Your task to perform on an android device: delete browsing data in the chrome app Image 0: 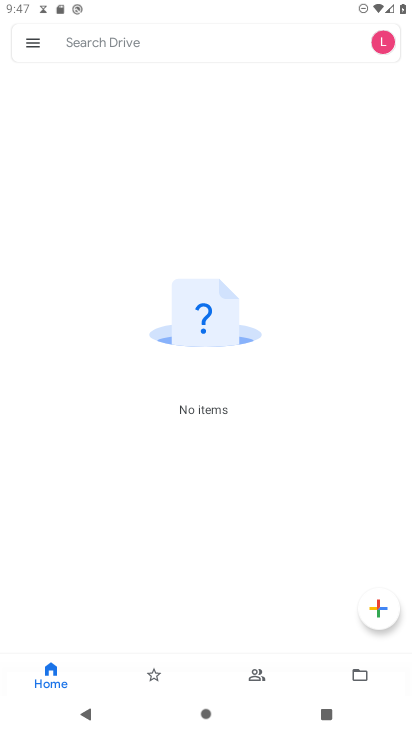
Step 0: press home button
Your task to perform on an android device: delete browsing data in the chrome app Image 1: 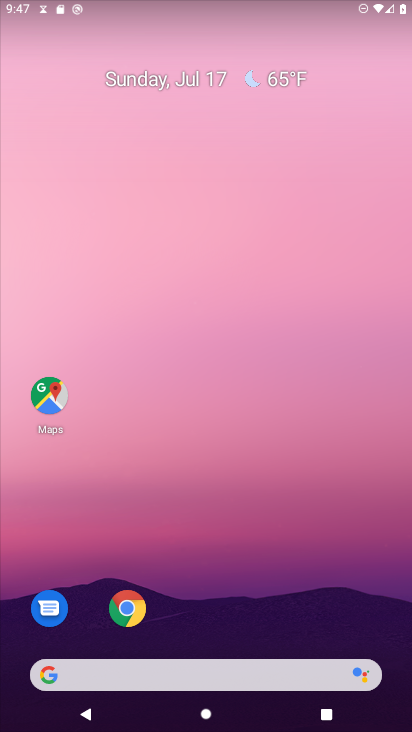
Step 1: click (125, 609)
Your task to perform on an android device: delete browsing data in the chrome app Image 2: 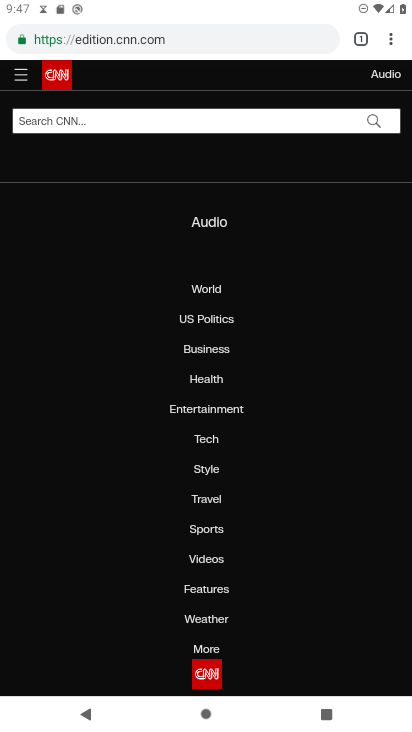
Step 2: click (391, 39)
Your task to perform on an android device: delete browsing data in the chrome app Image 3: 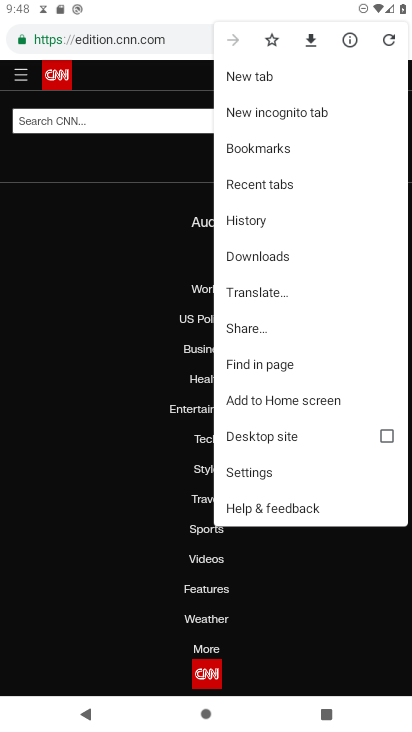
Step 3: click (258, 470)
Your task to perform on an android device: delete browsing data in the chrome app Image 4: 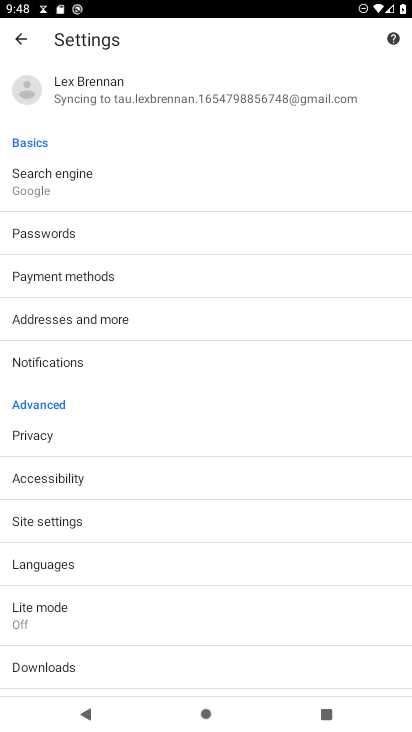
Step 4: click (51, 435)
Your task to perform on an android device: delete browsing data in the chrome app Image 5: 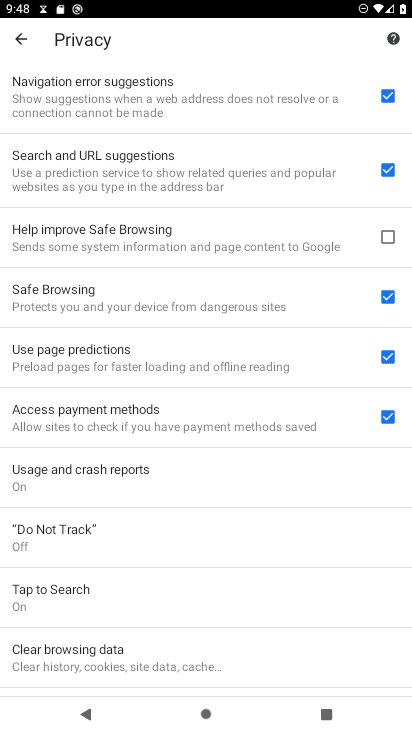
Step 5: click (99, 653)
Your task to perform on an android device: delete browsing data in the chrome app Image 6: 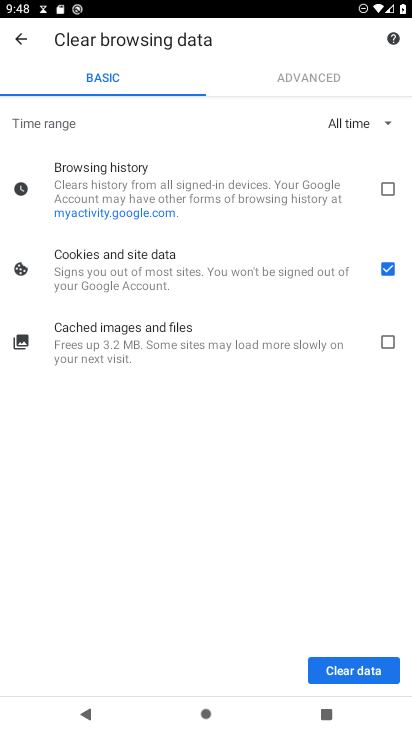
Step 6: click (390, 342)
Your task to perform on an android device: delete browsing data in the chrome app Image 7: 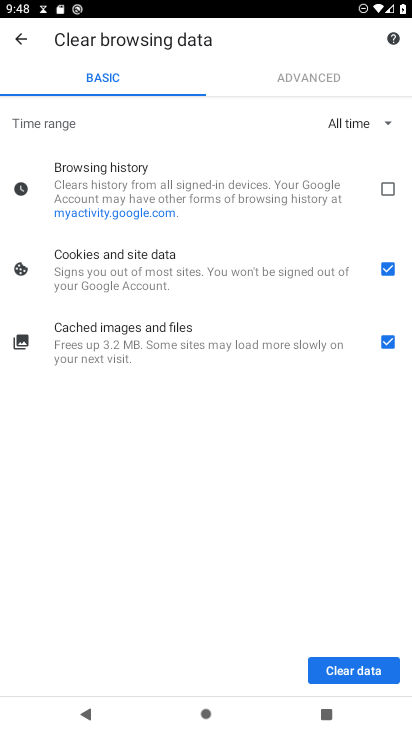
Step 7: click (378, 198)
Your task to perform on an android device: delete browsing data in the chrome app Image 8: 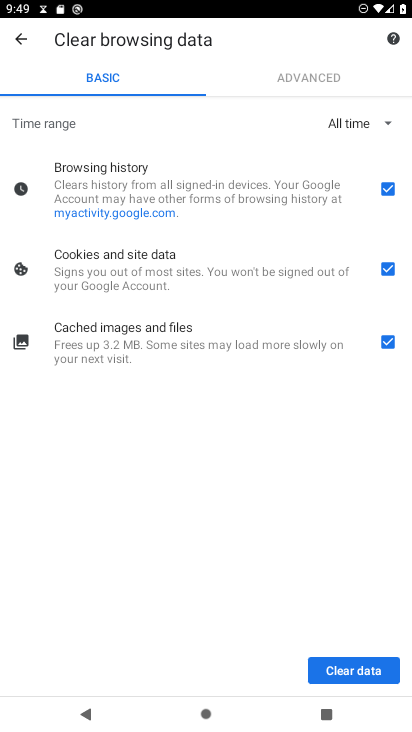
Step 8: click (350, 673)
Your task to perform on an android device: delete browsing data in the chrome app Image 9: 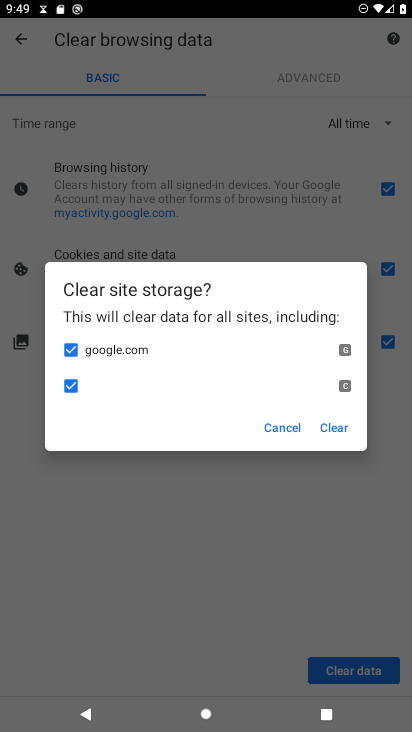
Step 9: click (338, 430)
Your task to perform on an android device: delete browsing data in the chrome app Image 10: 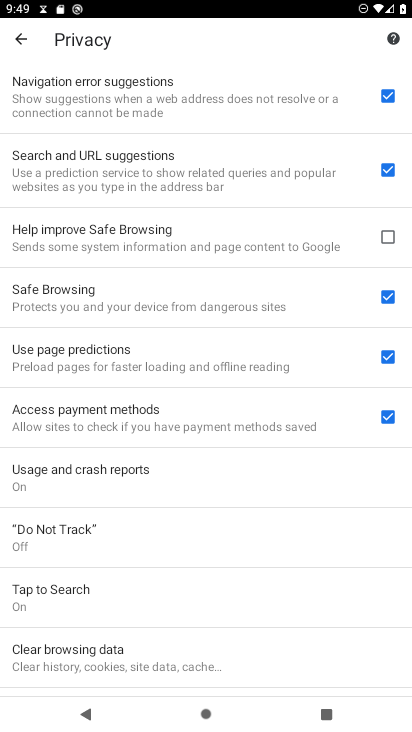
Step 10: press home button
Your task to perform on an android device: delete browsing data in the chrome app Image 11: 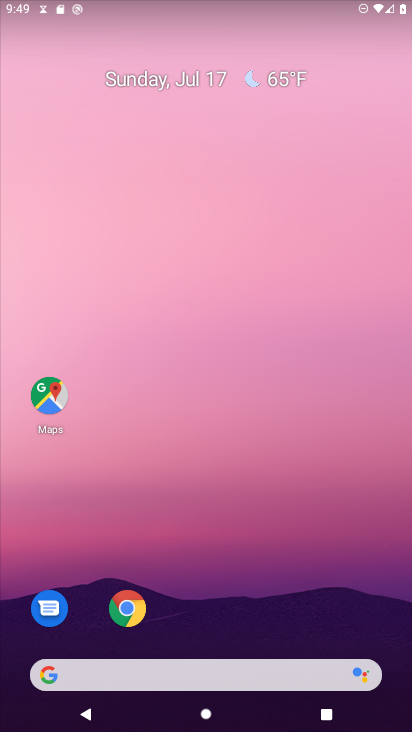
Step 11: click (130, 613)
Your task to perform on an android device: delete browsing data in the chrome app Image 12: 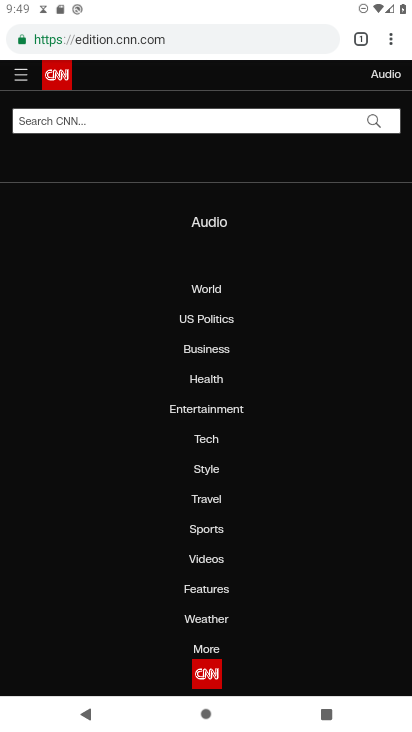
Step 12: click (391, 43)
Your task to perform on an android device: delete browsing data in the chrome app Image 13: 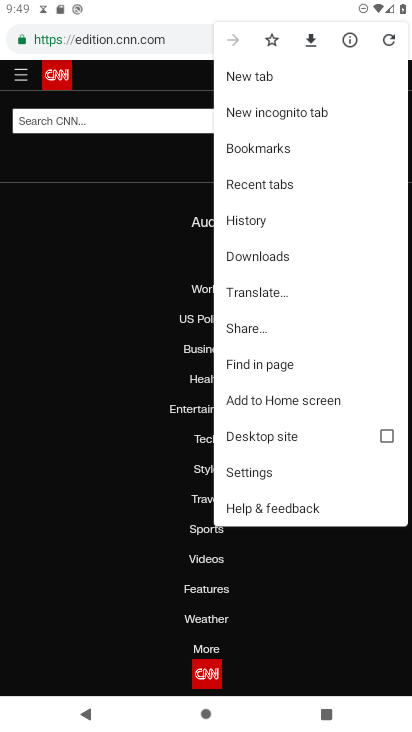
Step 13: click (252, 475)
Your task to perform on an android device: delete browsing data in the chrome app Image 14: 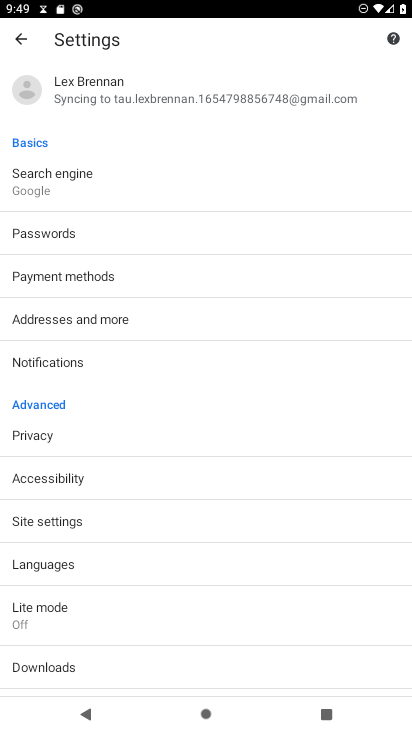
Step 14: click (46, 444)
Your task to perform on an android device: delete browsing data in the chrome app Image 15: 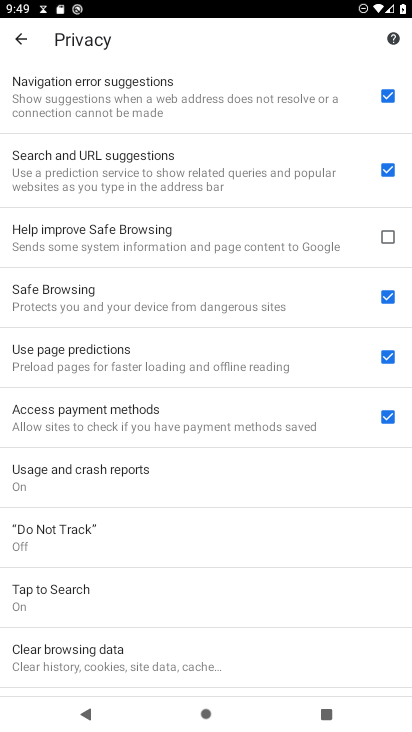
Step 15: click (95, 656)
Your task to perform on an android device: delete browsing data in the chrome app Image 16: 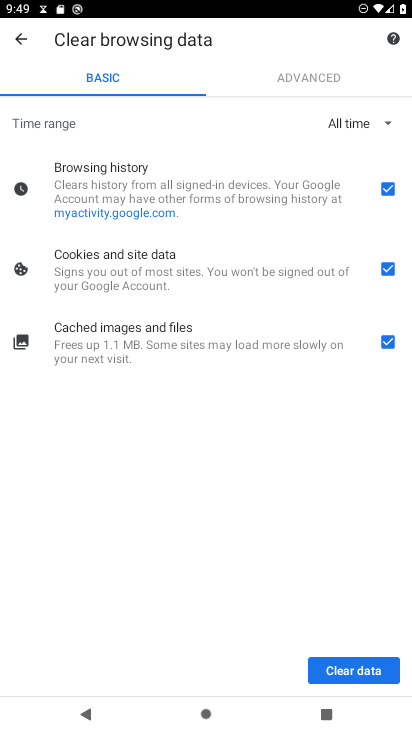
Step 16: click (350, 676)
Your task to perform on an android device: delete browsing data in the chrome app Image 17: 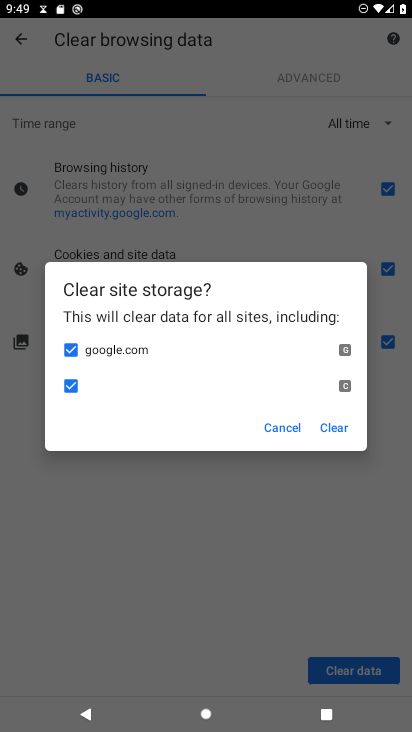
Step 17: click (335, 430)
Your task to perform on an android device: delete browsing data in the chrome app Image 18: 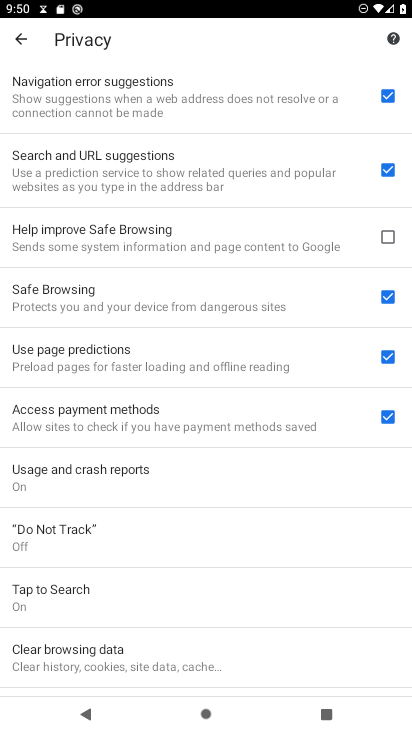
Step 18: task complete